Your task to perform on an android device: choose inbox layout in the gmail app Image 0: 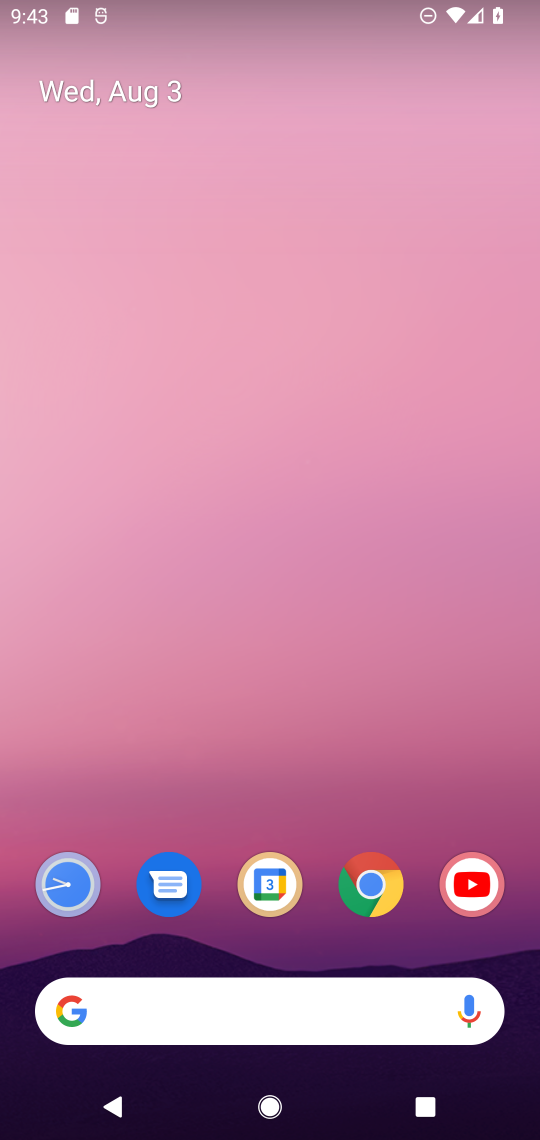
Step 0: drag from (59, 1060) to (250, 326)
Your task to perform on an android device: choose inbox layout in the gmail app Image 1: 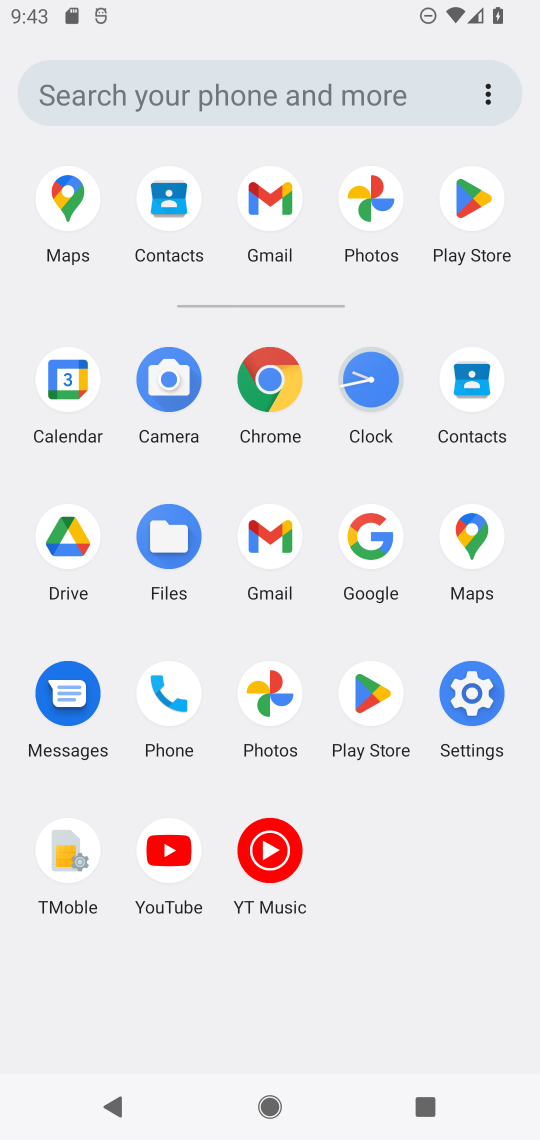
Step 1: click (281, 550)
Your task to perform on an android device: choose inbox layout in the gmail app Image 2: 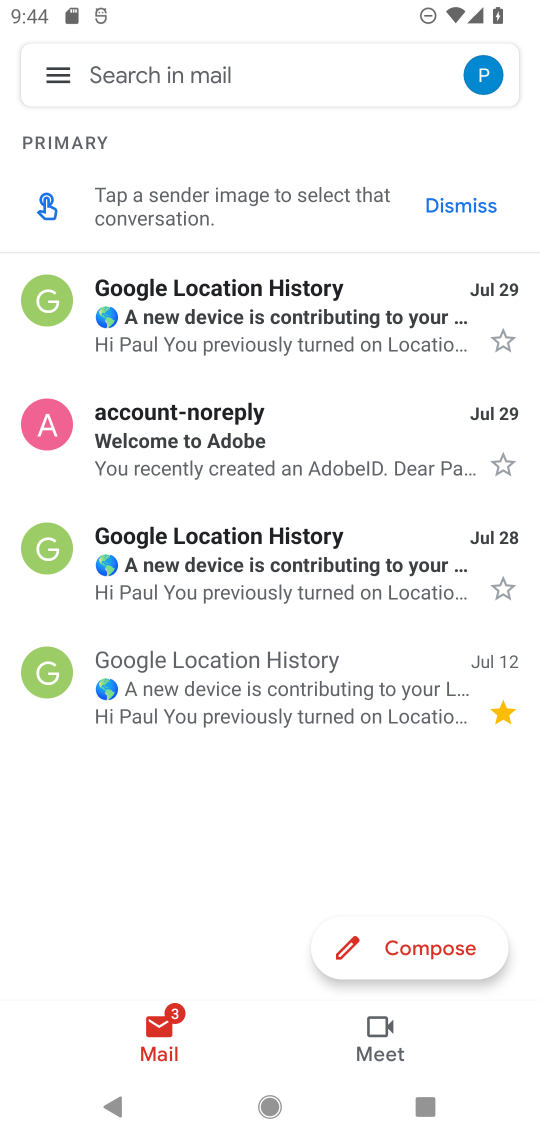
Step 2: click (46, 63)
Your task to perform on an android device: choose inbox layout in the gmail app Image 3: 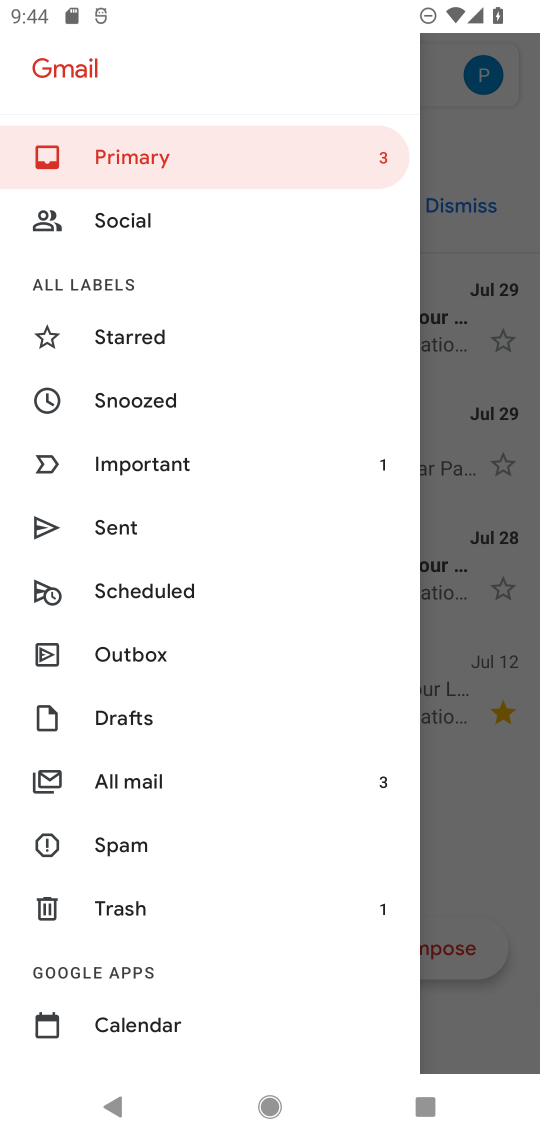
Step 3: drag from (186, 1047) to (309, 361)
Your task to perform on an android device: choose inbox layout in the gmail app Image 4: 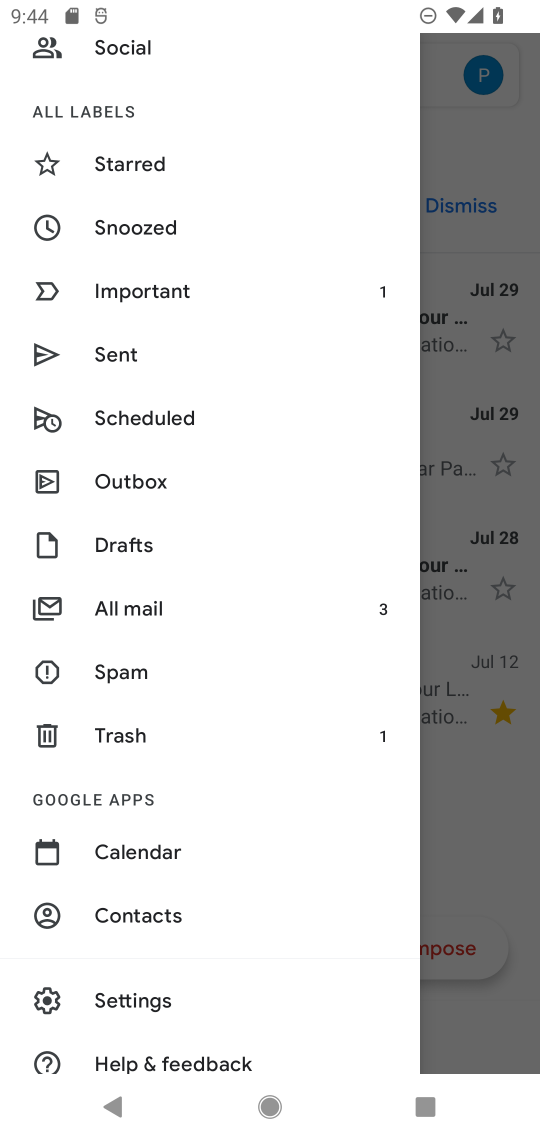
Step 4: click (486, 1053)
Your task to perform on an android device: choose inbox layout in the gmail app Image 5: 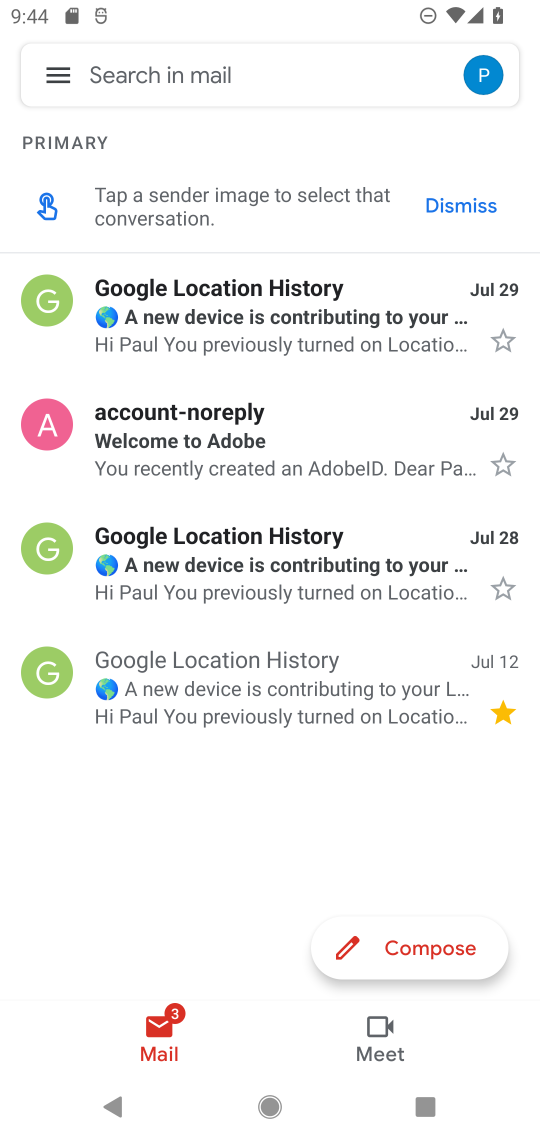
Step 5: task complete